Your task to perform on an android device: Go to wifi settings Image 0: 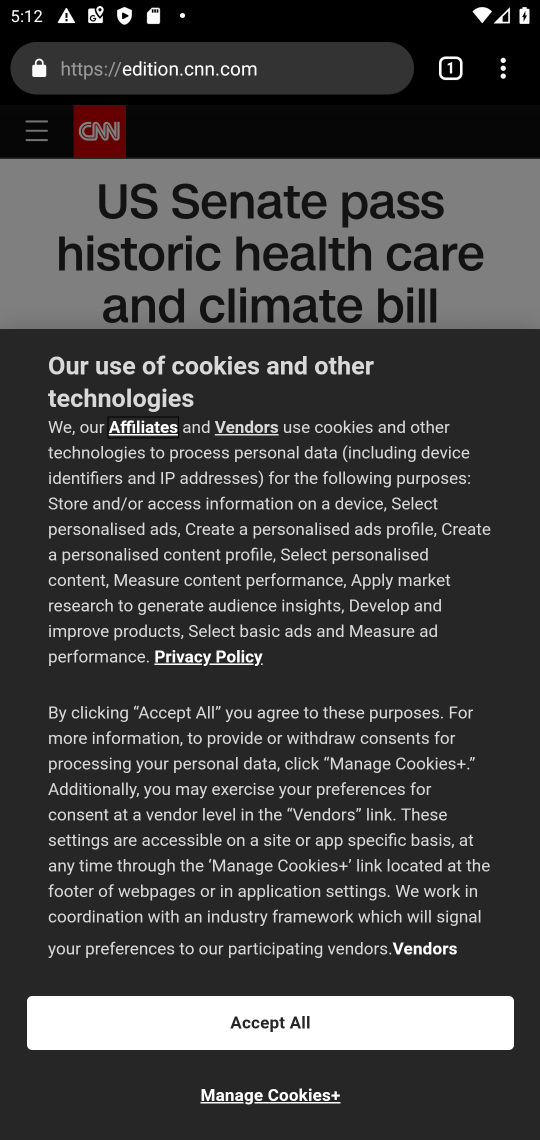
Step 0: press home button
Your task to perform on an android device: Go to wifi settings Image 1: 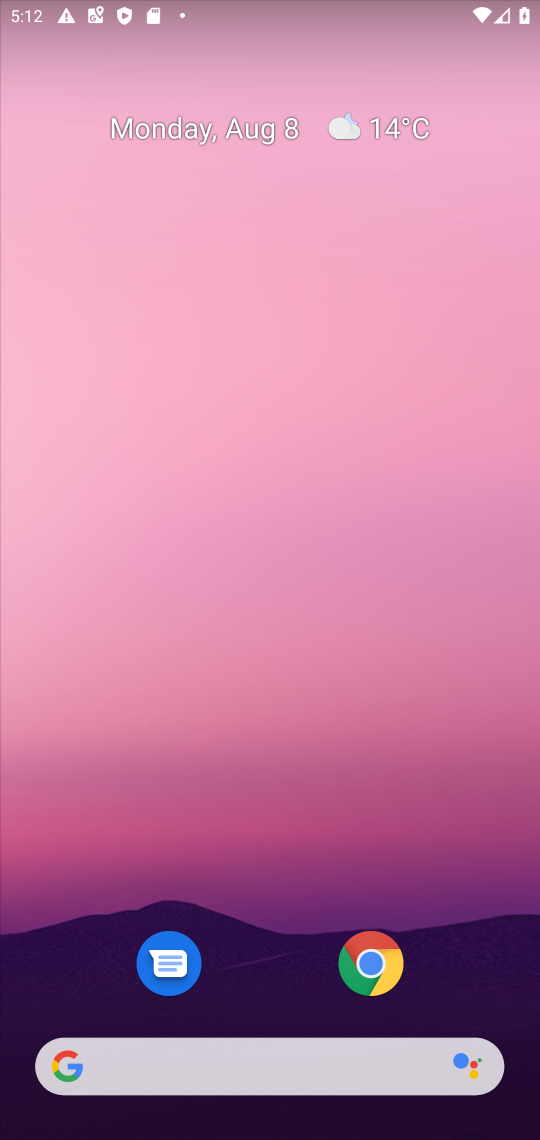
Step 1: drag from (216, 803) to (208, 121)
Your task to perform on an android device: Go to wifi settings Image 2: 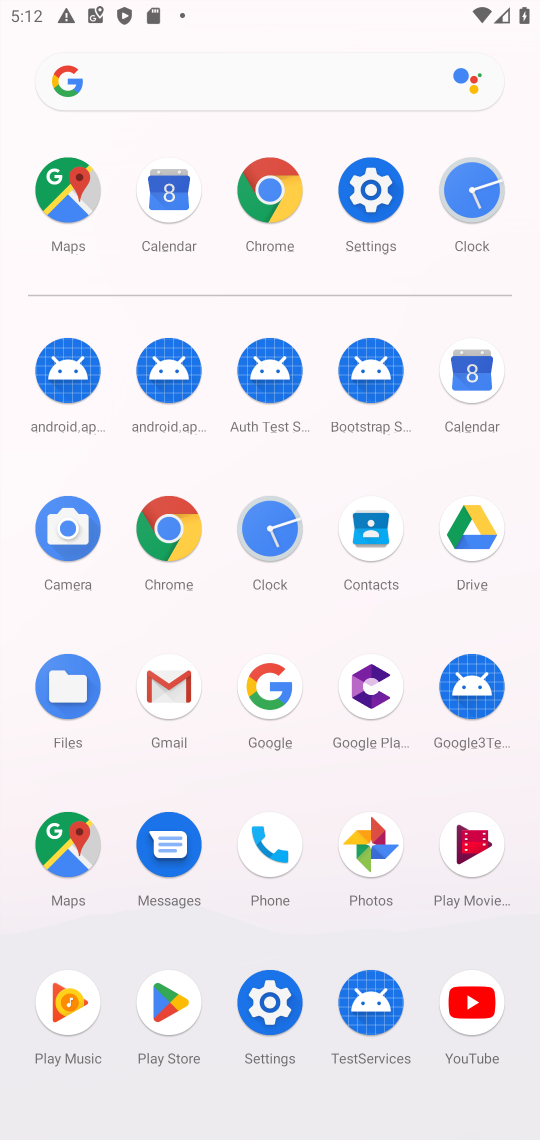
Step 2: click (362, 177)
Your task to perform on an android device: Go to wifi settings Image 3: 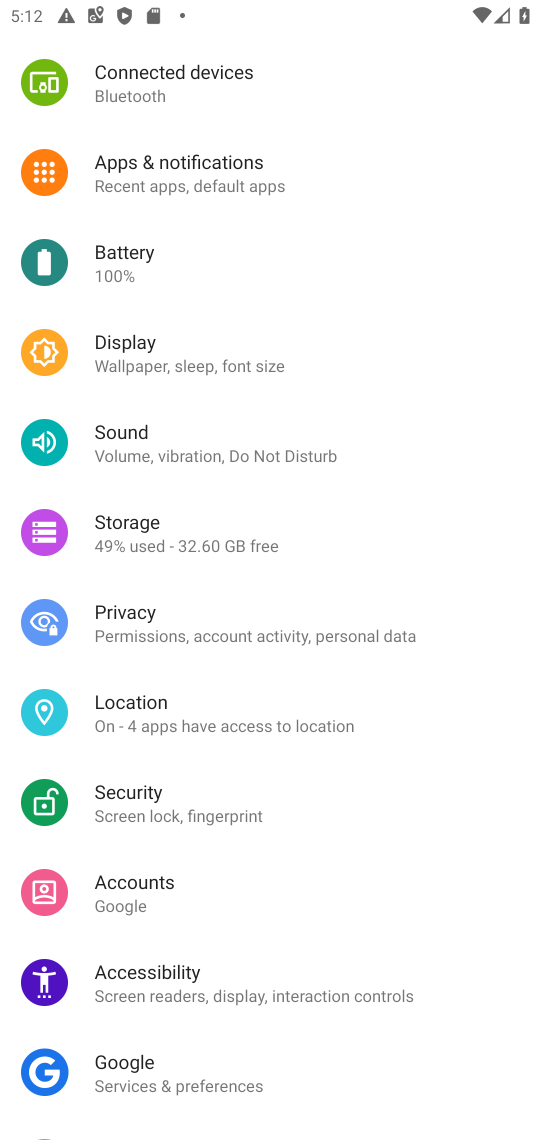
Step 3: drag from (292, 95) to (373, 723)
Your task to perform on an android device: Go to wifi settings Image 4: 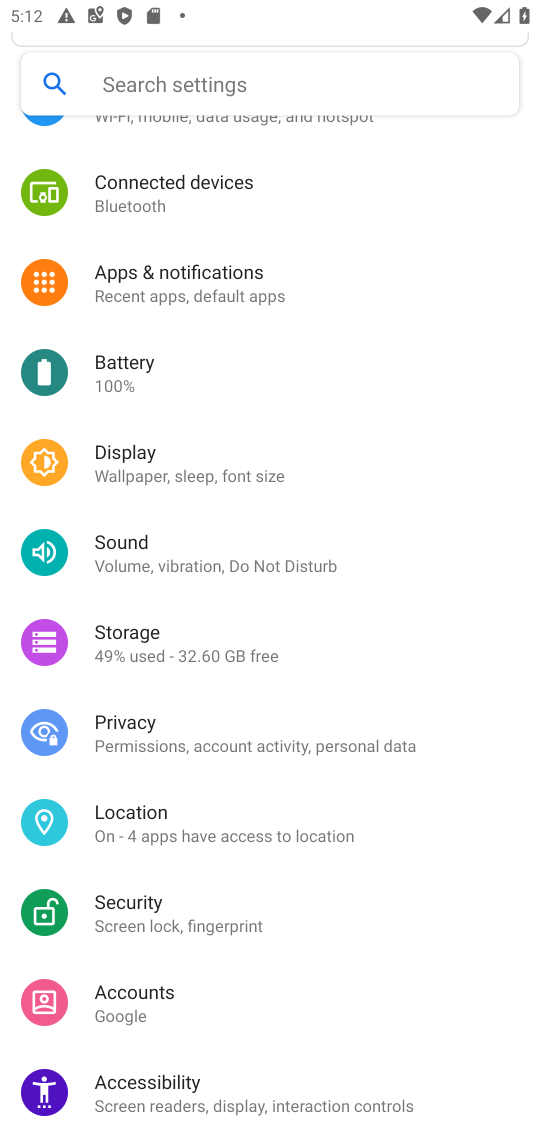
Step 4: drag from (334, 199) to (354, 877)
Your task to perform on an android device: Go to wifi settings Image 5: 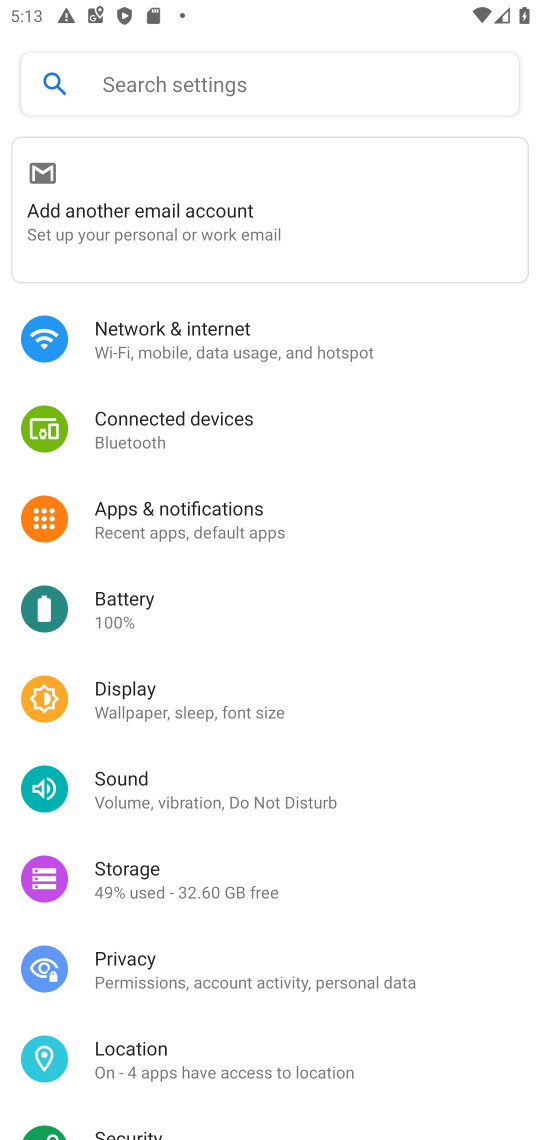
Step 5: click (263, 342)
Your task to perform on an android device: Go to wifi settings Image 6: 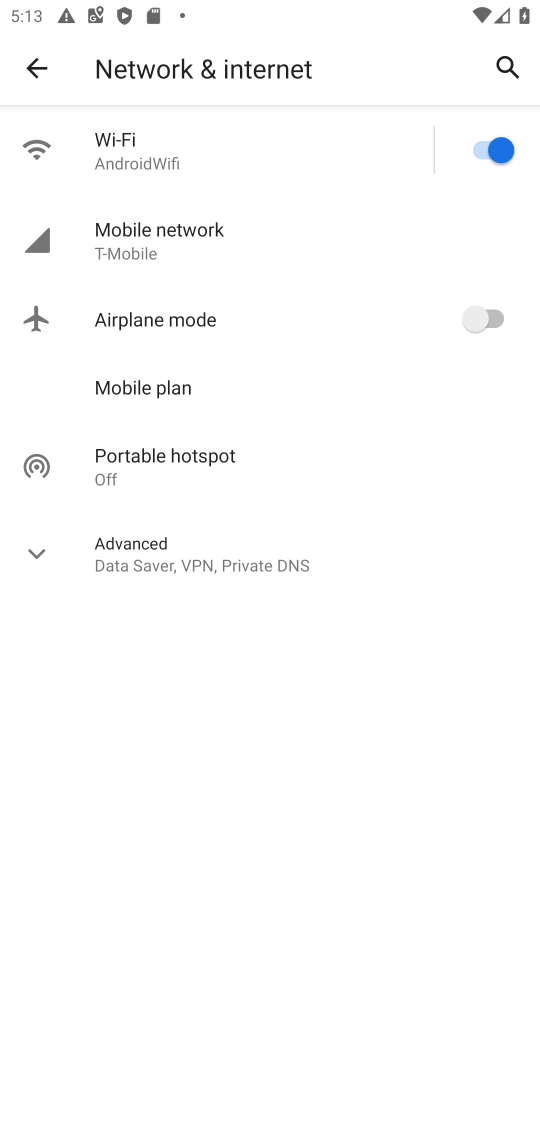
Step 6: click (260, 155)
Your task to perform on an android device: Go to wifi settings Image 7: 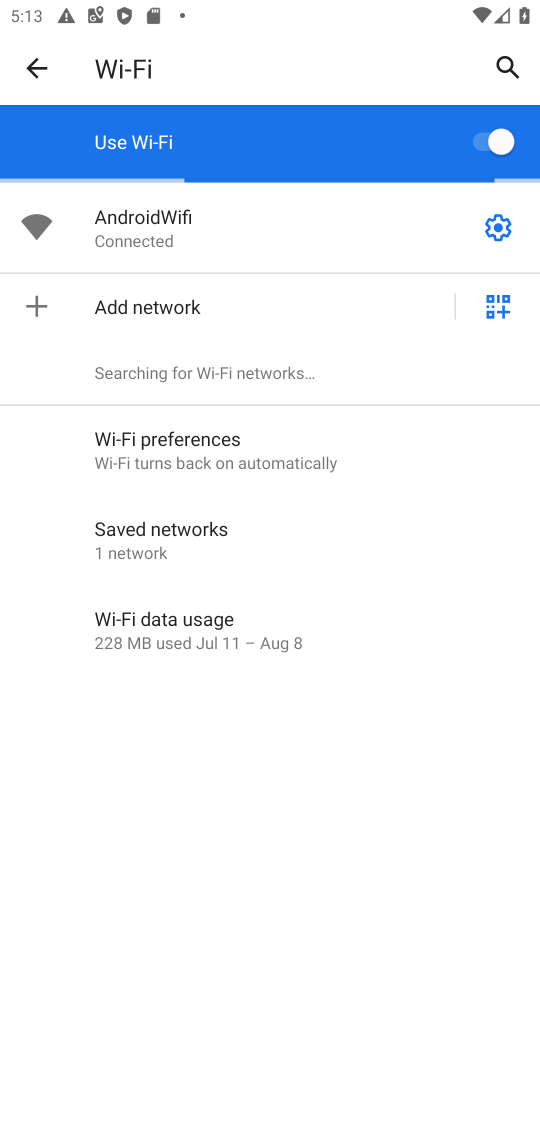
Step 7: task complete